Your task to perform on an android device: toggle show notifications on the lock screen Image 0: 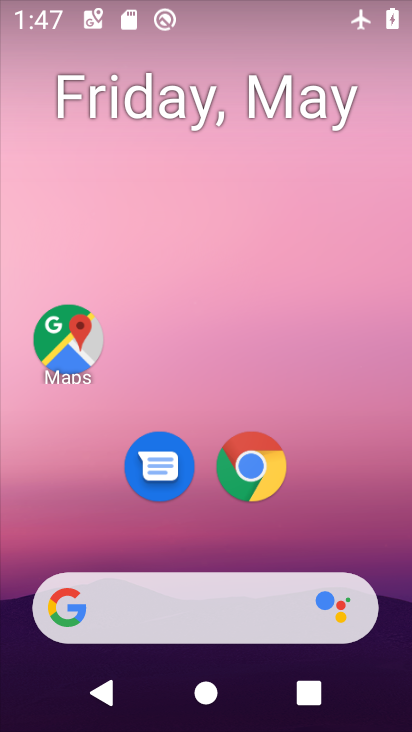
Step 0: drag from (340, 392) to (379, 33)
Your task to perform on an android device: toggle show notifications on the lock screen Image 1: 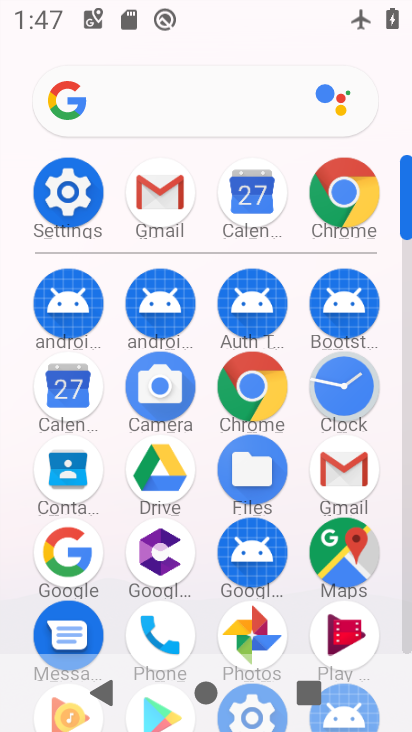
Step 1: click (55, 179)
Your task to perform on an android device: toggle show notifications on the lock screen Image 2: 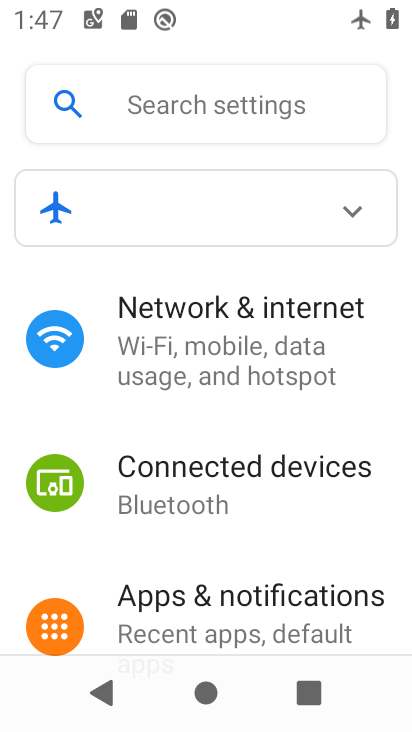
Step 2: drag from (325, 560) to (328, 188)
Your task to perform on an android device: toggle show notifications on the lock screen Image 3: 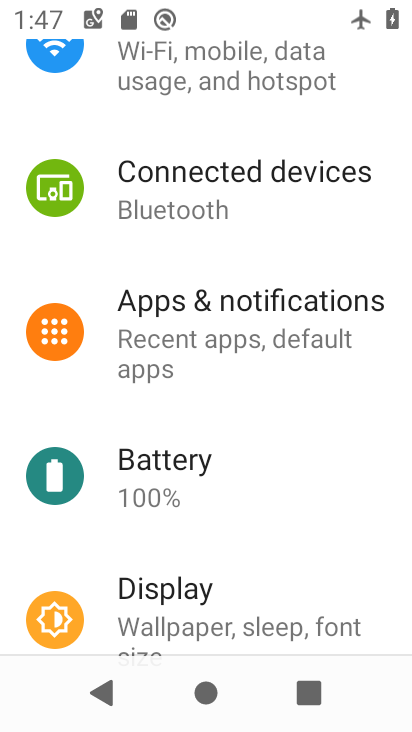
Step 3: click (312, 336)
Your task to perform on an android device: toggle show notifications on the lock screen Image 4: 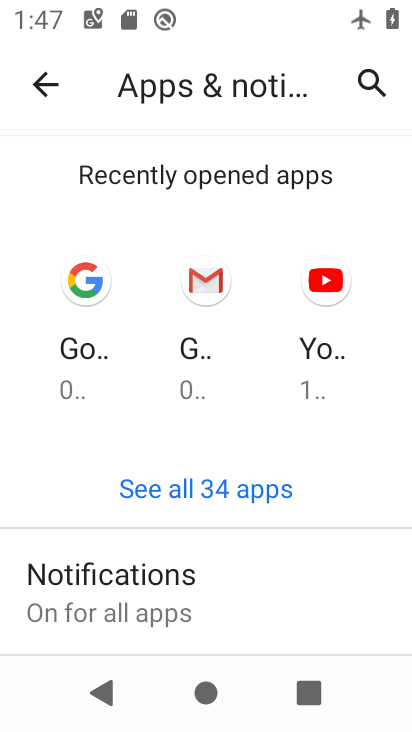
Step 4: click (74, 594)
Your task to perform on an android device: toggle show notifications on the lock screen Image 5: 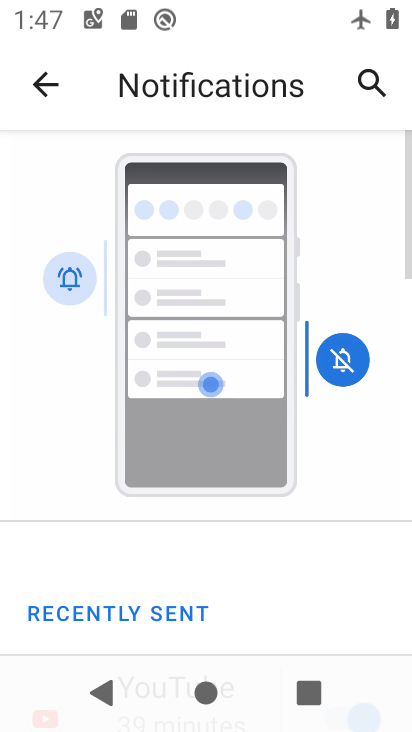
Step 5: drag from (136, 627) to (188, 231)
Your task to perform on an android device: toggle show notifications on the lock screen Image 6: 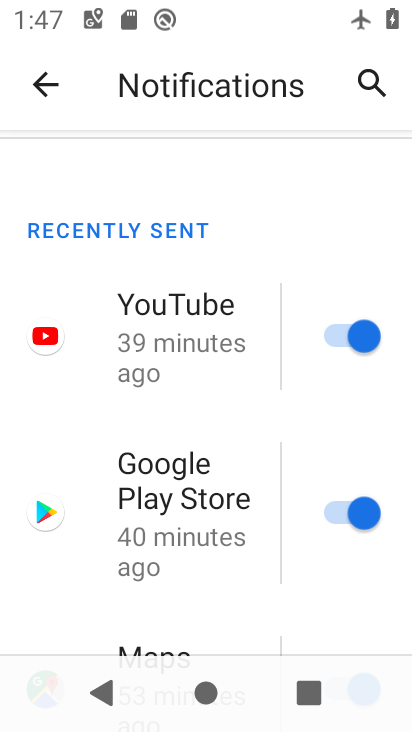
Step 6: drag from (208, 587) to (223, 260)
Your task to perform on an android device: toggle show notifications on the lock screen Image 7: 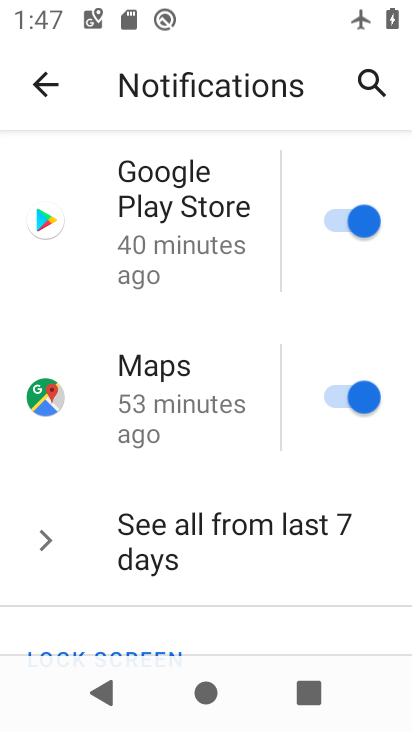
Step 7: drag from (246, 573) to (235, 213)
Your task to perform on an android device: toggle show notifications on the lock screen Image 8: 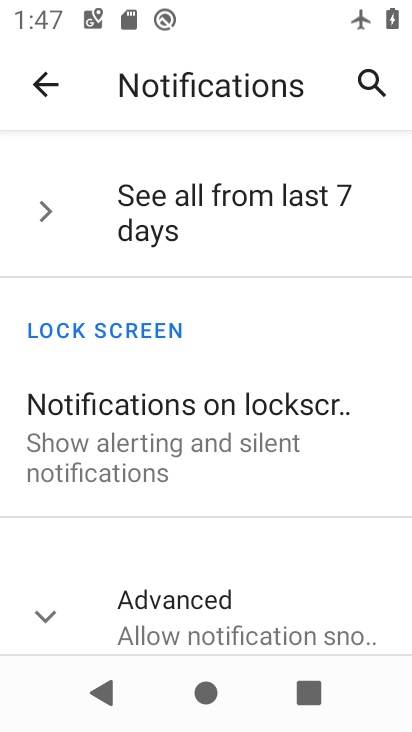
Step 8: drag from (235, 581) to (247, 351)
Your task to perform on an android device: toggle show notifications on the lock screen Image 9: 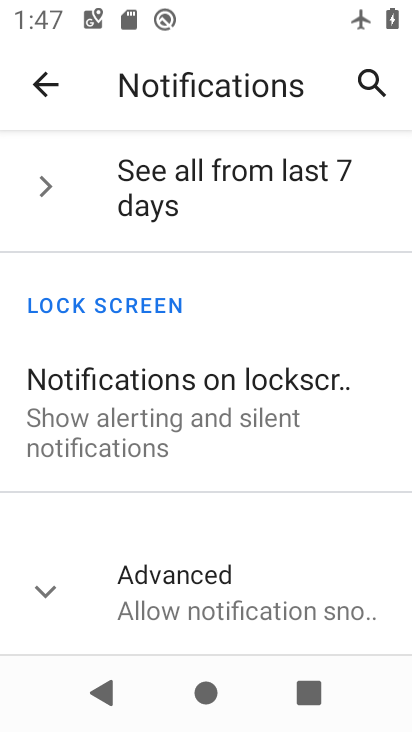
Step 9: click (201, 393)
Your task to perform on an android device: toggle show notifications on the lock screen Image 10: 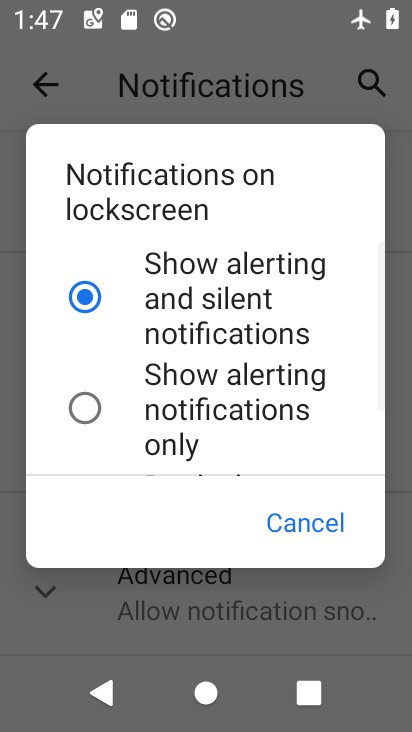
Step 10: drag from (202, 390) to (218, 136)
Your task to perform on an android device: toggle show notifications on the lock screen Image 11: 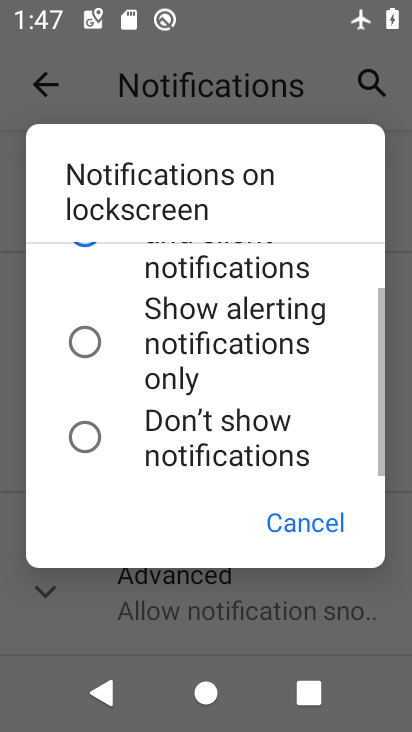
Step 11: click (89, 347)
Your task to perform on an android device: toggle show notifications on the lock screen Image 12: 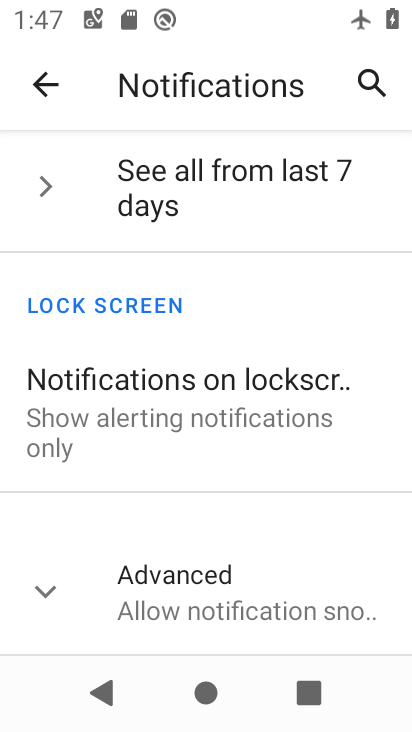
Step 12: task complete